Your task to perform on an android device: Toggle the flashlight Image 0: 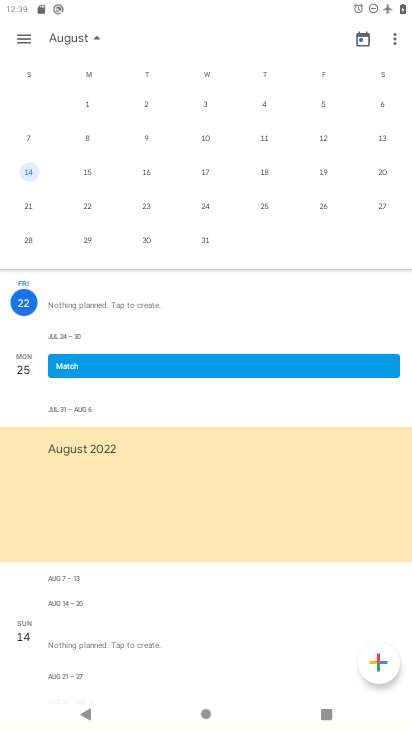
Step 0: press home button
Your task to perform on an android device: Toggle the flashlight Image 1: 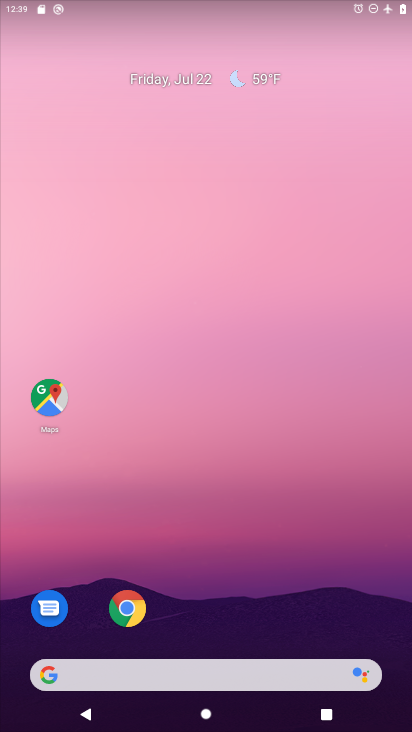
Step 1: drag from (344, 519) to (274, 56)
Your task to perform on an android device: Toggle the flashlight Image 2: 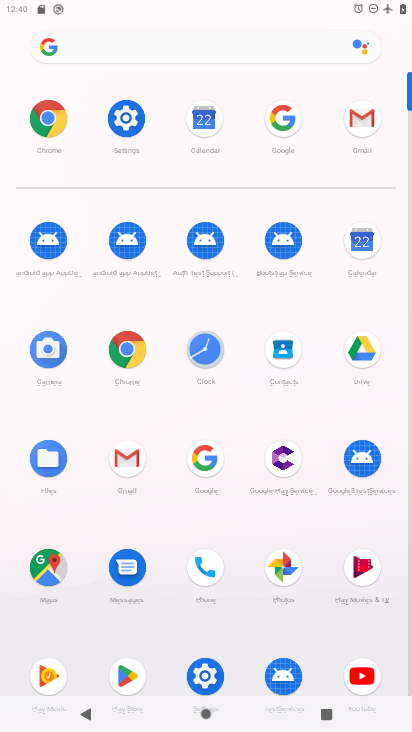
Step 2: click (204, 681)
Your task to perform on an android device: Toggle the flashlight Image 3: 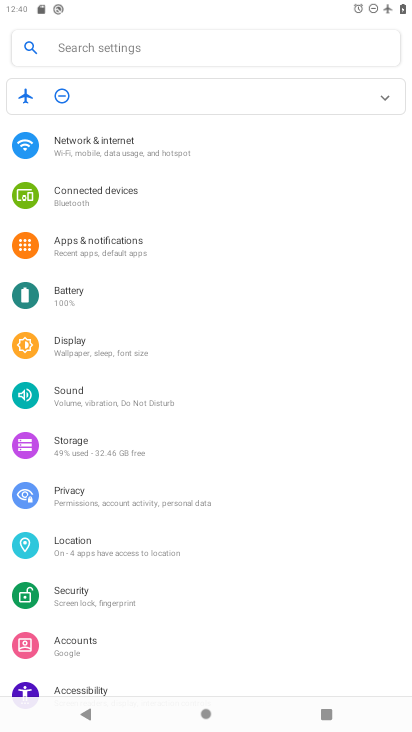
Step 3: task complete